Your task to perform on an android device: Open the calendar and show me this week's events Image 0: 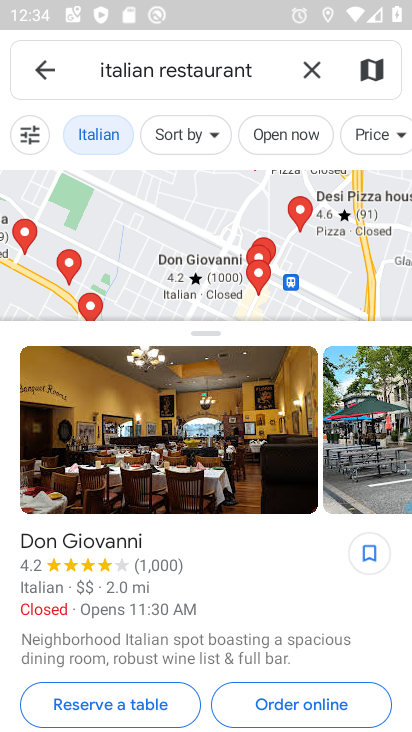
Step 0: press home button
Your task to perform on an android device: Open the calendar and show me this week's events Image 1: 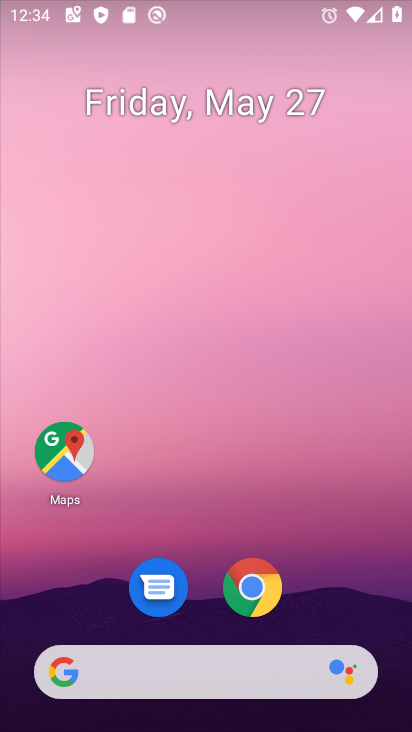
Step 1: drag from (312, 190) to (319, 155)
Your task to perform on an android device: Open the calendar and show me this week's events Image 2: 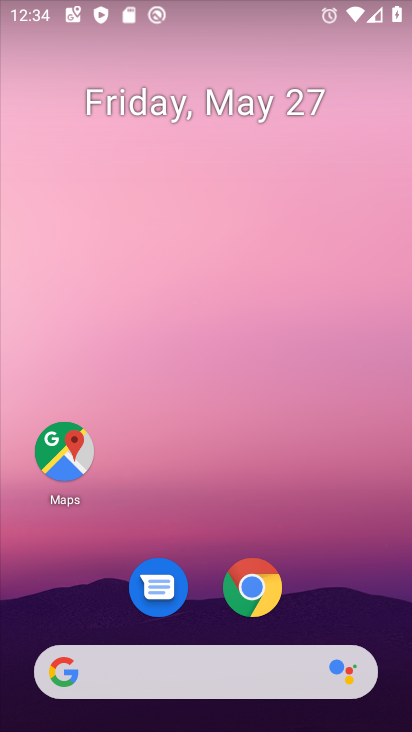
Step 2: drag from (194, 678) to (257, 188)
Your task to perform on an android device: Open the calendar and show me this week's events Image 3: 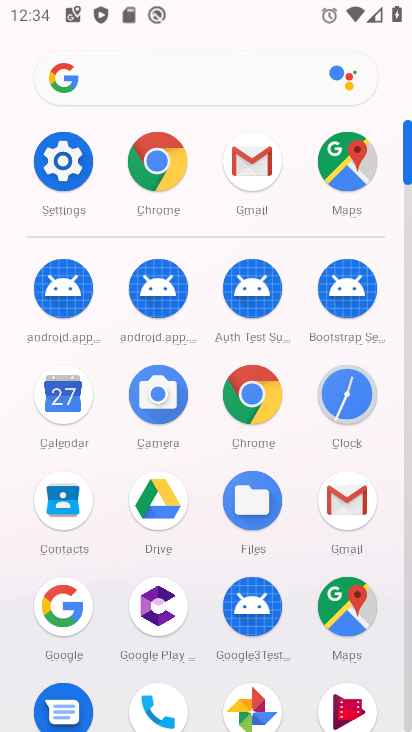
Step 3: click (54, 396)
Your task to perform on an android device: Open the calendar and show me this week's events Image 4: 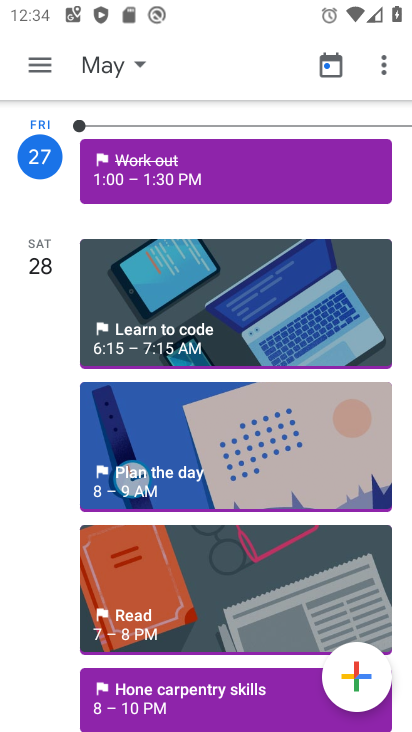
Step 4: click (43, 63)
Your task to perform on an android device: Open the calendar and show me this week's events Image 5: 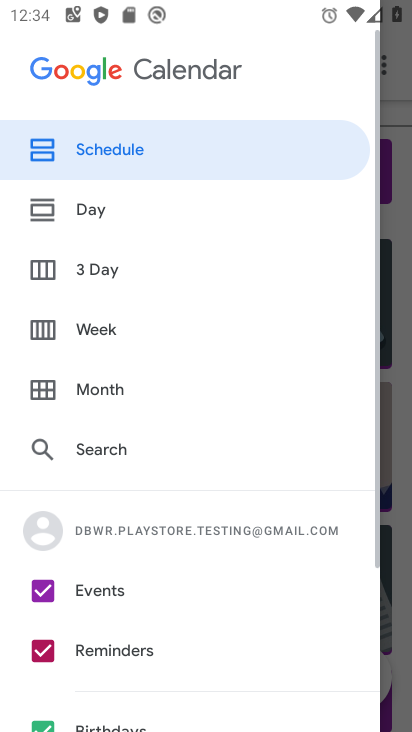
Step 5: click (113, 394)
Your task to perform on an android device: Open the calendar and show me this week's events Image 6: 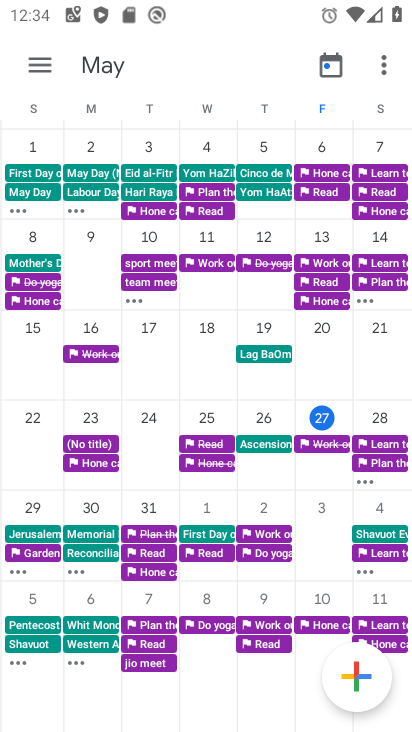
Step 6: click (335, 424)
Your task to perform on an android device: Open the calendar and show me this week's events Image 7: 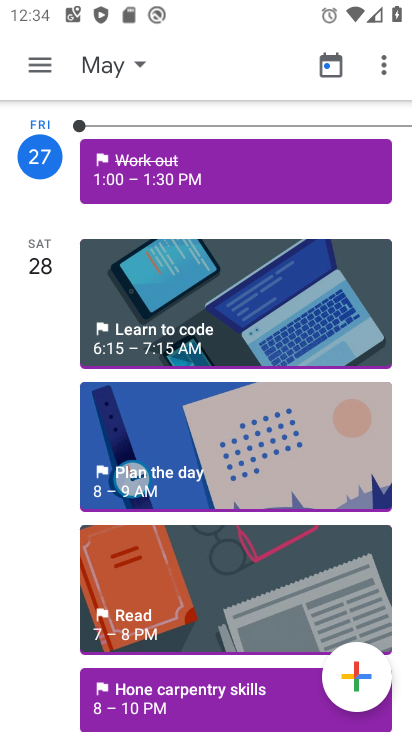
Step 7: task complete